Your task to perform on an android device: turn off translation in the chrome app Image 0: 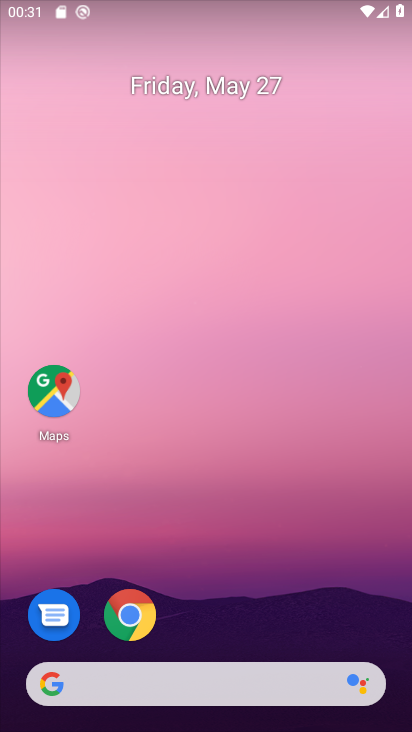
Step 0: drag from (369, 625) to (386, 206)
Your task to perform on an android device: turn off translation in the chrome app Image 1: 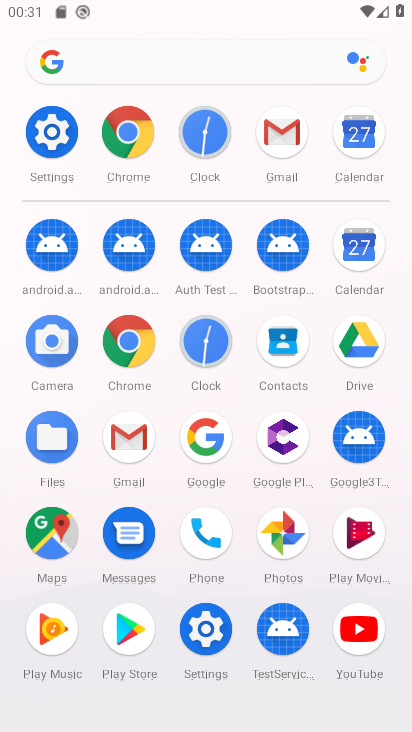
Step 1: click (145, 347)
Your task to perform on an android device: turn off translation in the chrome app Image 2: 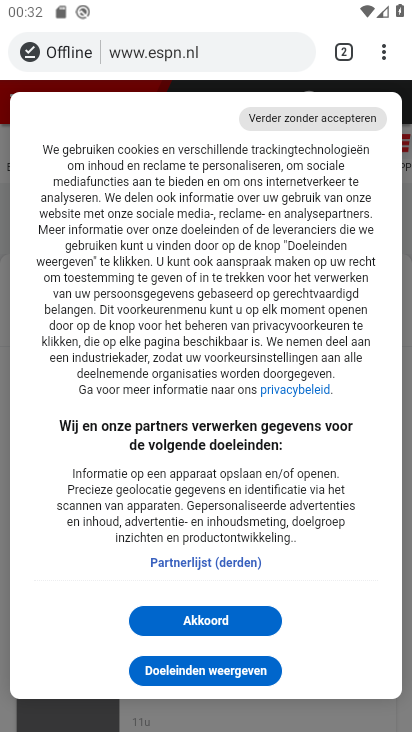
Step 2: click (384, 53)
Your task to perform on an android device: turn off translation in the chrome app Image 3: 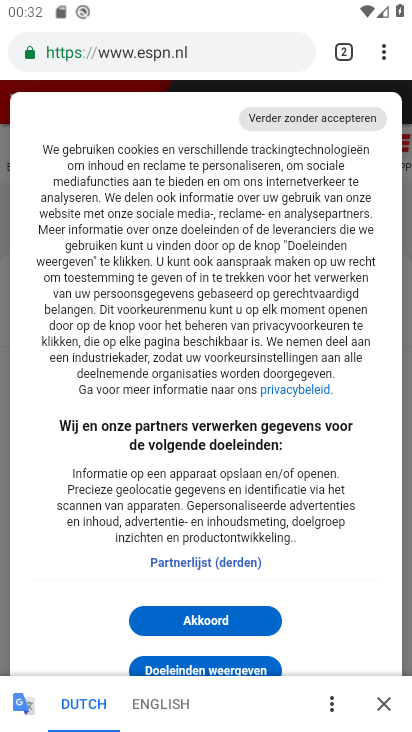
Step 3: click (381, 59)
Your task to perform on an android device: turn off translation in the chrome app Image 4: 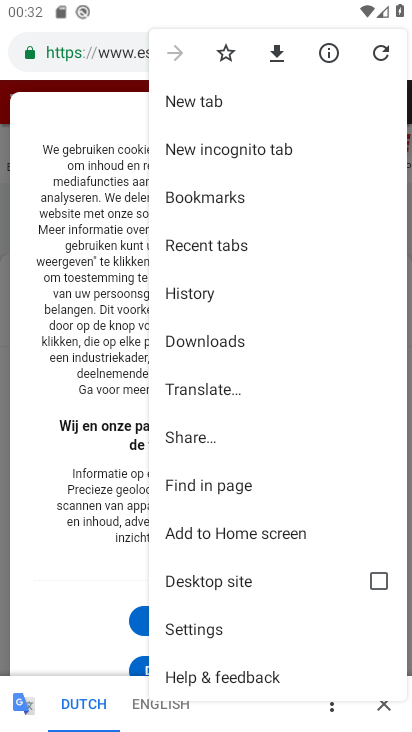
Step 4: click (217, 638)
Your task to perform on an android device: turn off translation in the chrome app Image 5: 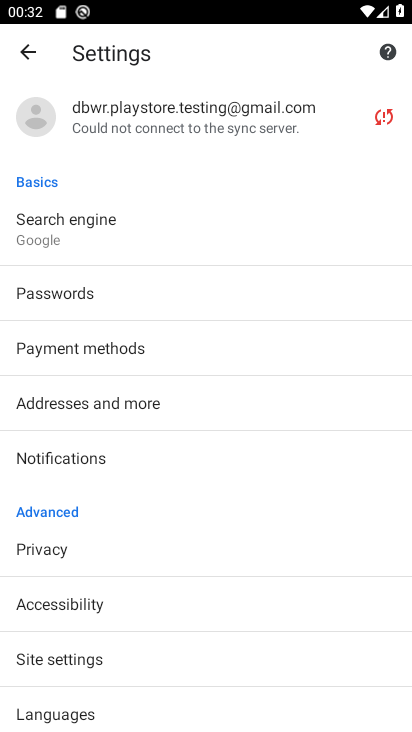
Step 5: click (106, 712)
Your task to perform on an android device: turn off translation in the chrome app Image 6: 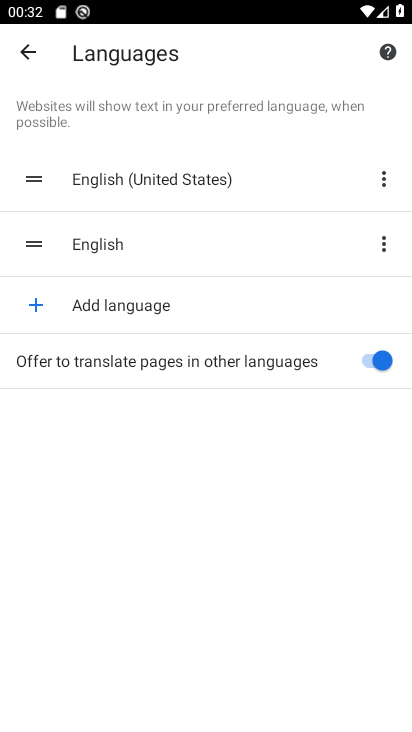
Step 6: click (366, 357)
Your task to perform on an android device: turn off translation in the chrome app Image 7: 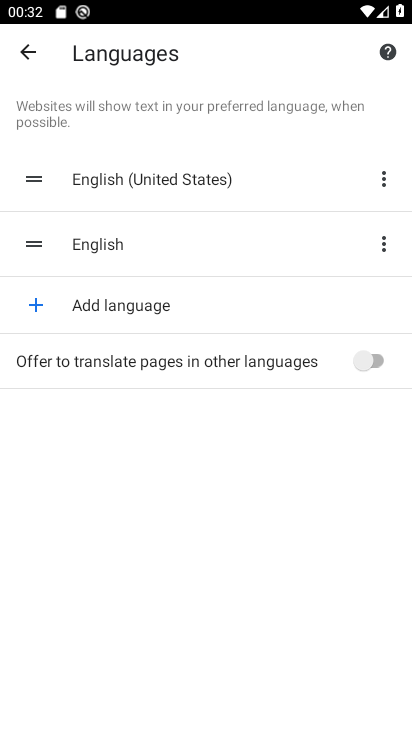
Step 7: task complete